Your task to perform on an android device: change timer sound Image 0: 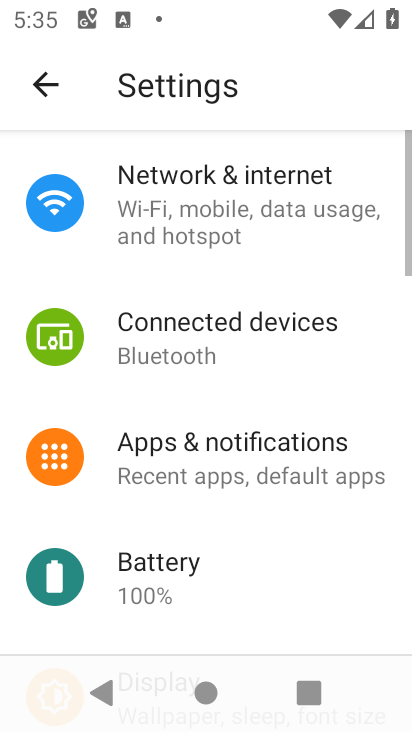
Step 0: press home button
Your task to perform on an android device: change timer sound Image 1: 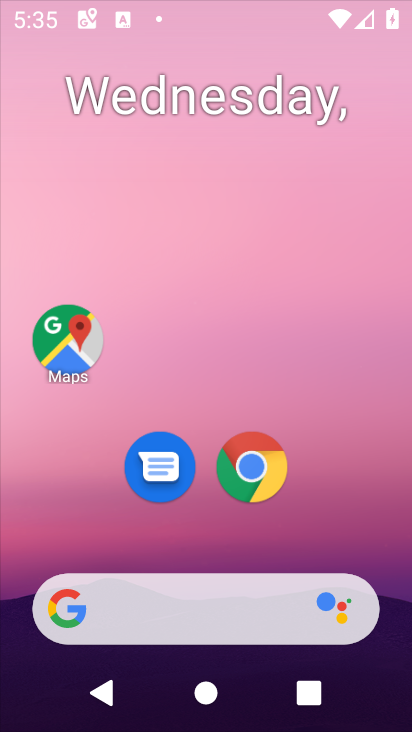
Step 1: drag from (331, 451) to (246, 11)
Your task to perform on an android device: change timer sound Image 2: 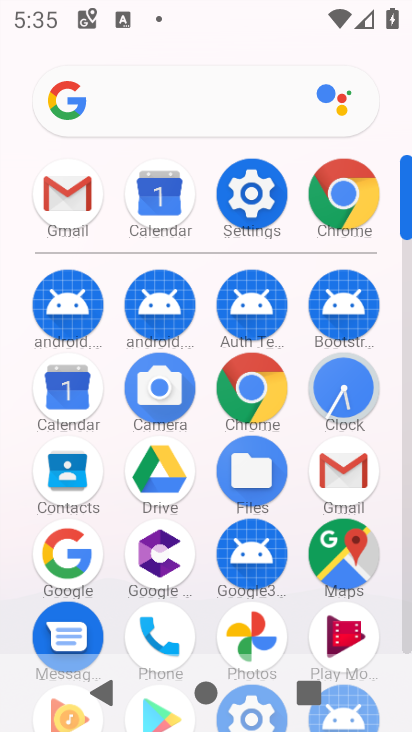
Step 2: click (331, 388)
Your task to perform on an android device: change timer sound Image 3: 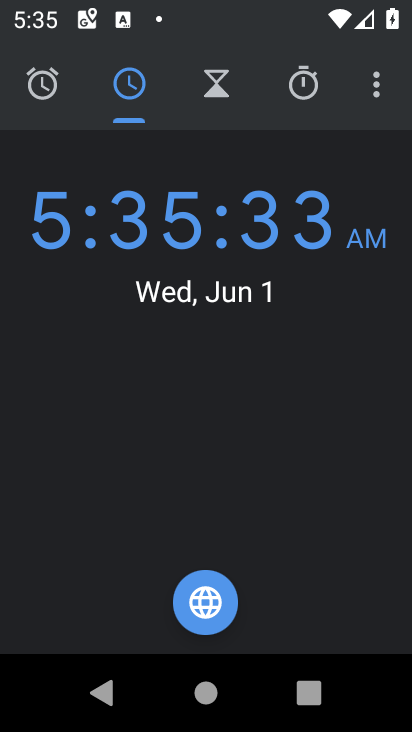
Step 3: click (370, 76)
Your task to perform on an android device: change timer sound Image 4: 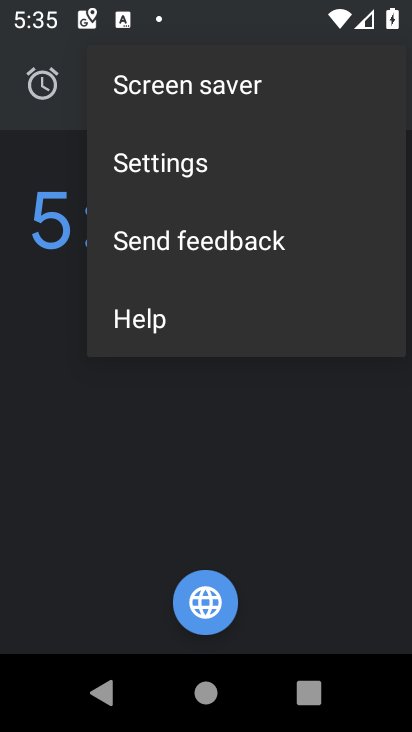
Step 4: click (211, 173)
Your task to perform on an android device: change timer sound Image 5: 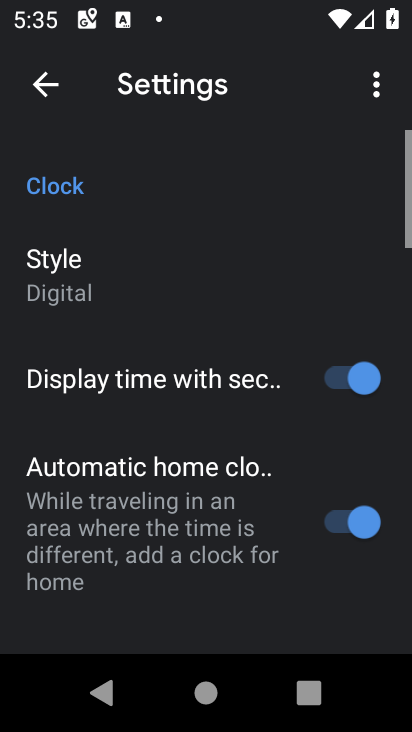
Step 5: drag from (291, 578) to (260, 157)
Your task to perform on an android device: change timer sound Image 6: 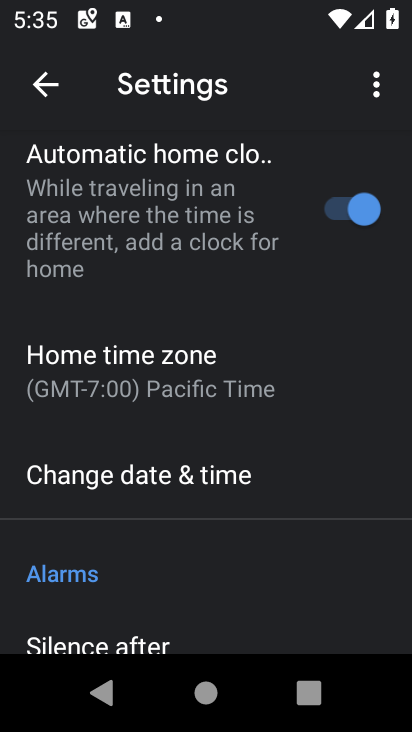
Step 6: drag from (228, 549) to (210, 202)
Your task to perform on an android device: change timer sound Image 7: 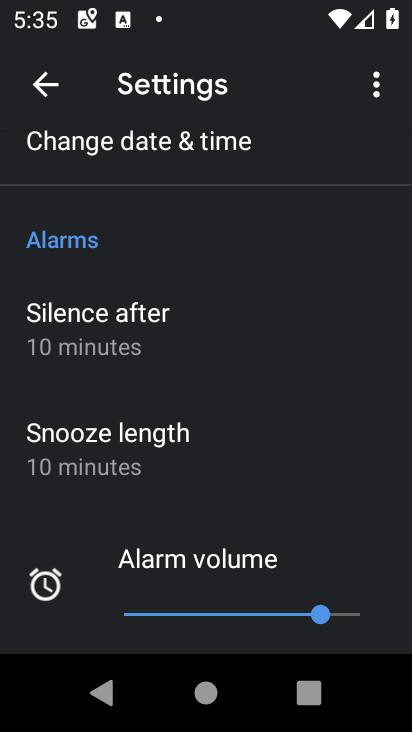
Step 7: drag from (186, 547) to (196, 240)
Your task to perform on an android device: change timer sound Image 8: 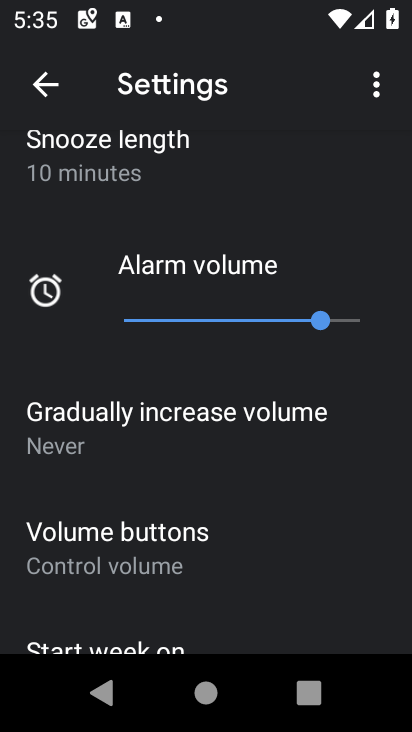
Step 8: drag from (185, 576) to (206, 131)
Your task to perform on an android device: change timer sound Image 9: 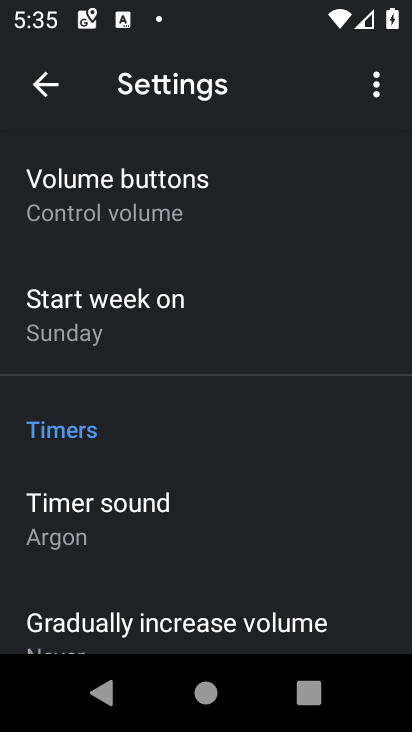
Step 9: click (194, 535)
Your task to perform on an android device: change timer sound Image 10: 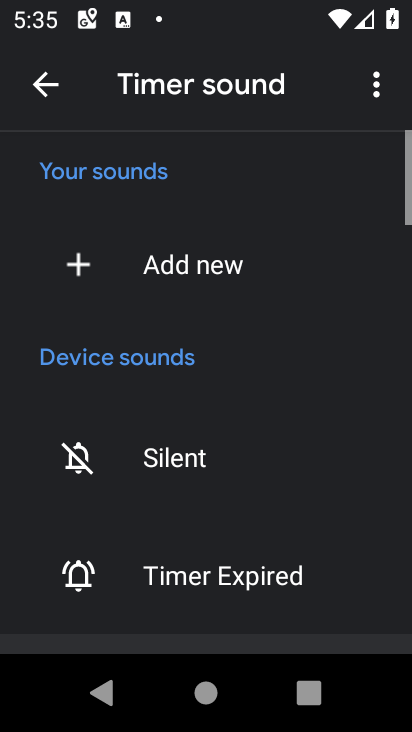
Step 10: drag from (271, 525) to (271, 157)
Your task to perform on an android device: change timer sound Image 11: 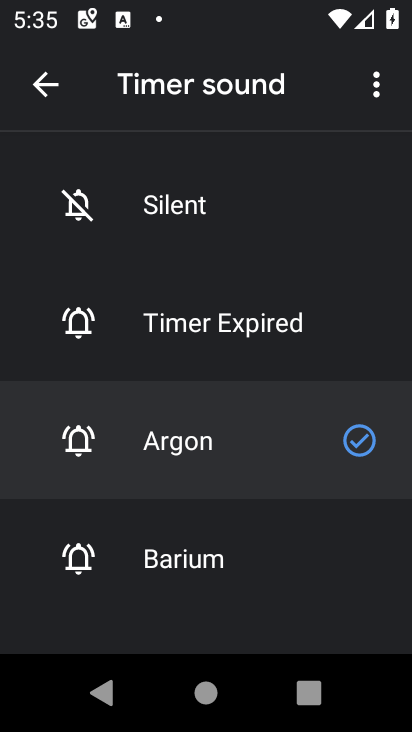
Step 11: click (294, 589)
Your task to perform on an android device: change timer sound Image 12: 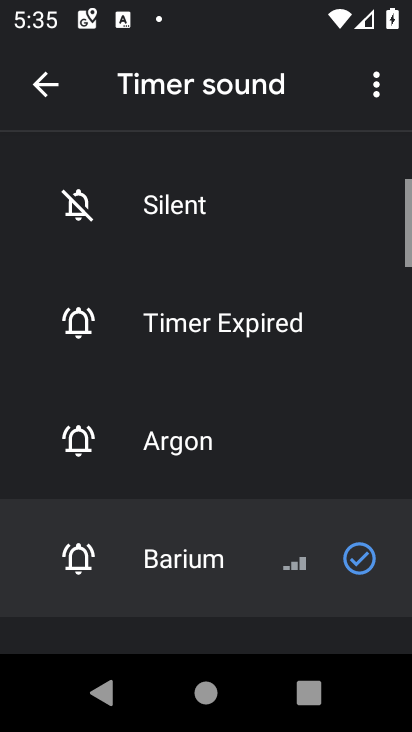
Step 12: task complete